Your task to perform on an android device: open app "Adobe Express: Graphic Design" (install if not already installed), go to login, and select forgot password Image 0: 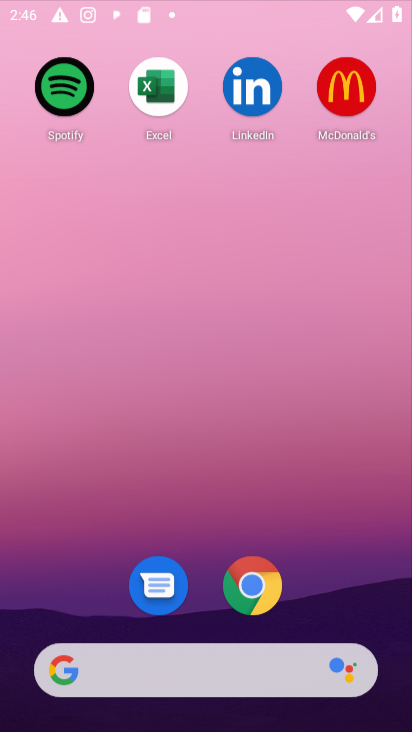
Step 0: press home button
Your task to perform on an android device: open app "Adobe Express: Graphic Design" (install if not already installed), go to login, and select forgot password Image 1: 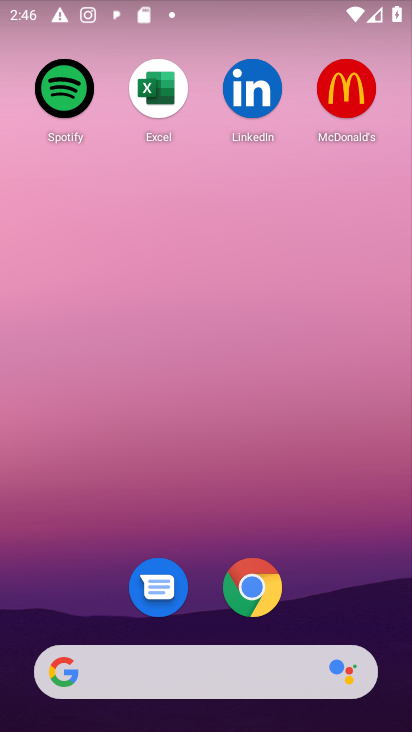
Step 1: press home button
Your task to perform on an android device: open app "Adobe Express: Graphic Design" (install if not already installed), go to login, and select forgot password Image 2: 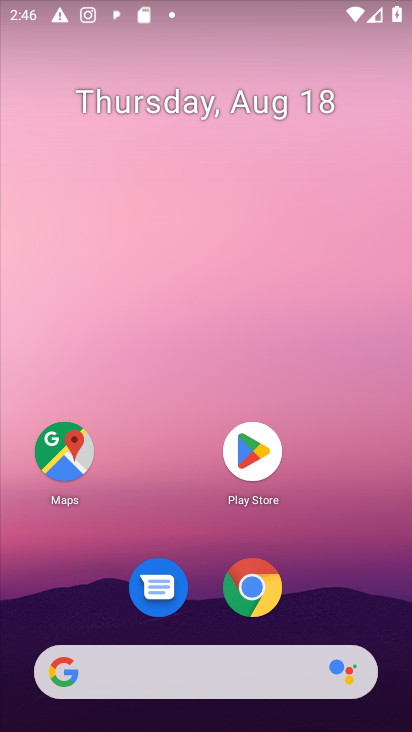
Step 2: type "Adobe Express: Graphic Design"
Your task to perform on an android device: open app "Adobe Express: Graphic Design" (install if not already installed), go to login, and select forgot password Image 3: 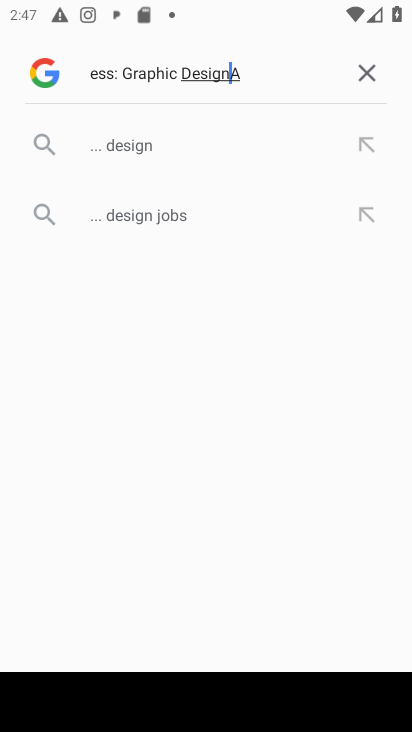
Step 3: click (257, 444)
Your task to perform on an android device: open app "Adobe Express: Graphic Design" (install if not already installed), go to login, and select forgot password Image 4: 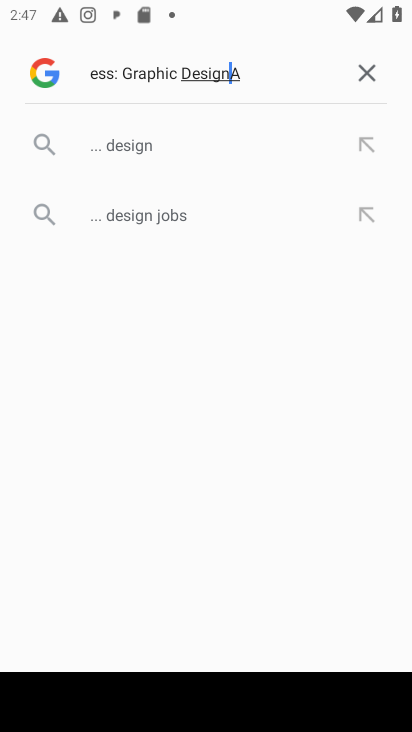
Step 4: press home button
Your task to perform on an android device: open app "Adobe Express: Graphic Design" (install if not already installed), go to login, and select forgot password Image 5: 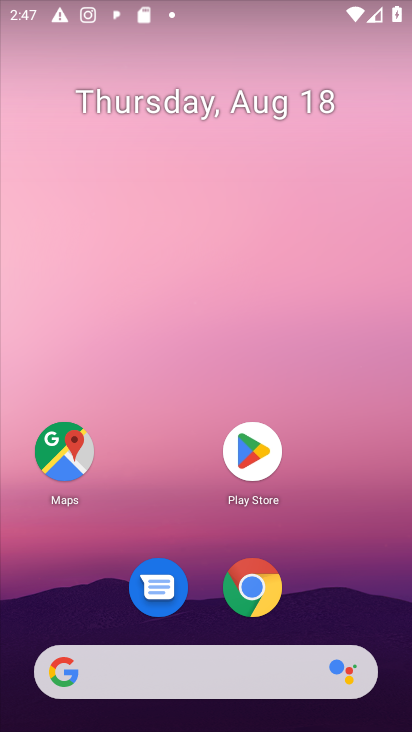
Step 5: click (240, 443)
Your task to perform on an android device: open app "Adobe Express: Graphic Design" (install if not already installed), go to login, and select forgot password Image 6: 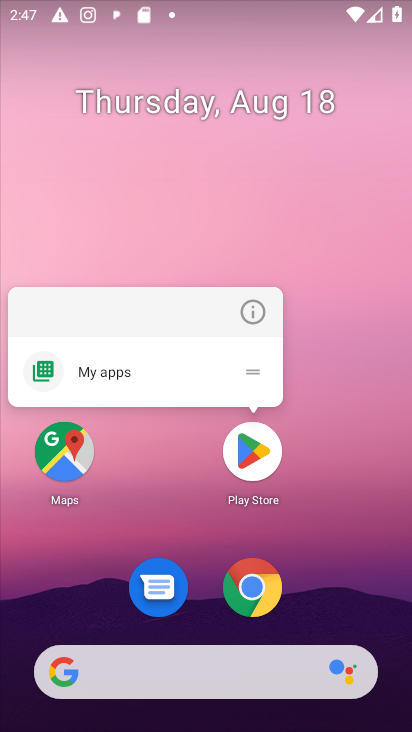
Step 6: click (236, 452)
Your task to perform on an android device: open app "Adobe Express: Graphic Design" (install if not already installed), go to login, and select forgot password Image 7: 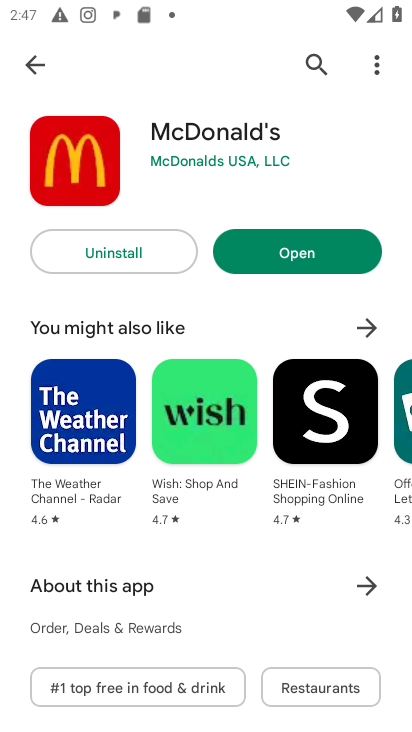
Step 7: click (313, 62)
Your task to perform on an android device: open app "Adobe Express: Graphic Design" (install if not already installed), go to login, and select forgot password Image 8: 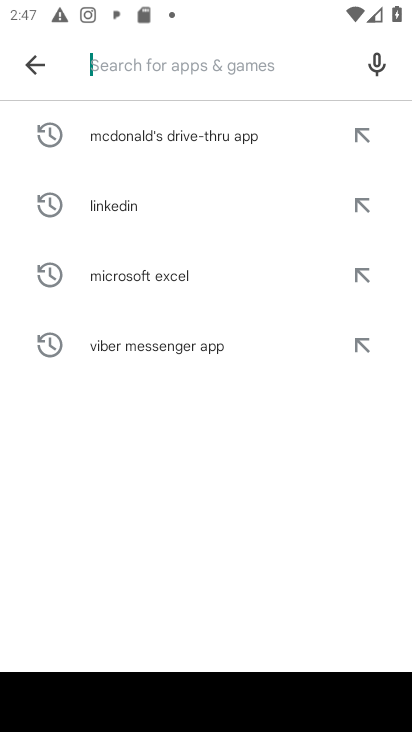
Step 8: type "Adobe Express: Graphic Design"
Your task to perform on an android device: open app "Adobe Express: Graphic Design" (install if not already installed), go to login, and select forgot password Image 9: 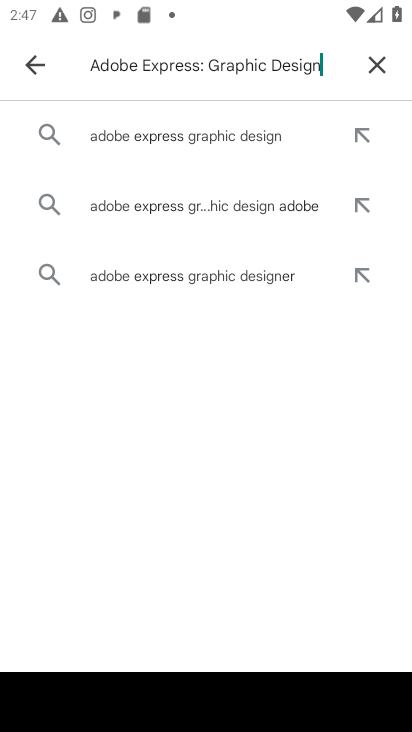
Step 9: click (235, 131)
Your task to perform on an android device: open app "Adobe Express: Graphic Design" (install if not already installed), go to login, and select forgot password Image 10: 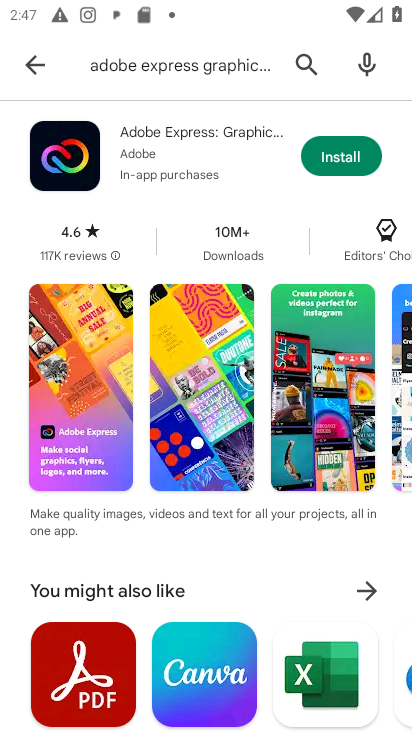
Step 10: click (330, 161)
Your task to perform on an android device: open app "Adobe Express: Graphic Design" (install if not already installed), go to login, and select forgot password Image 11: 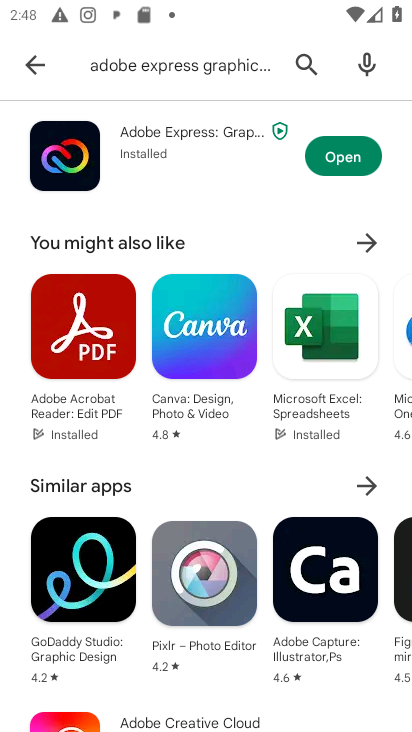
Step 11: click (353, 158)
Your task to perform on an android device: open app "Adobe Express: Graphic Design" (install if not already installed), go to login, and select forgot password Image 12: 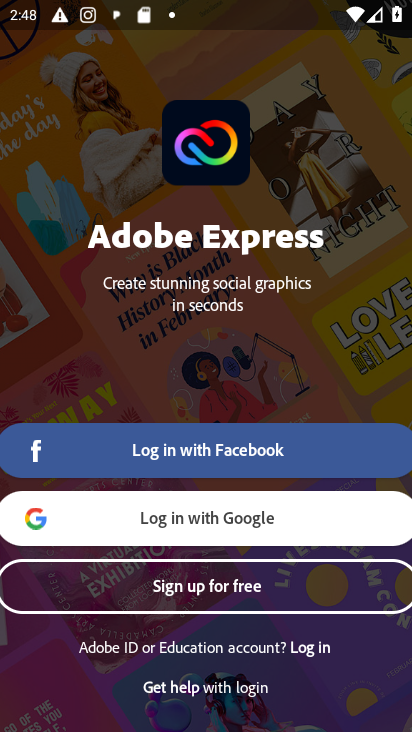
Step 12: click (326, 657)
Your task to perform on an android device: open app "Adobe Express: Graphic Design" (install if not already installed), go to login, and select forgot password Image 13: 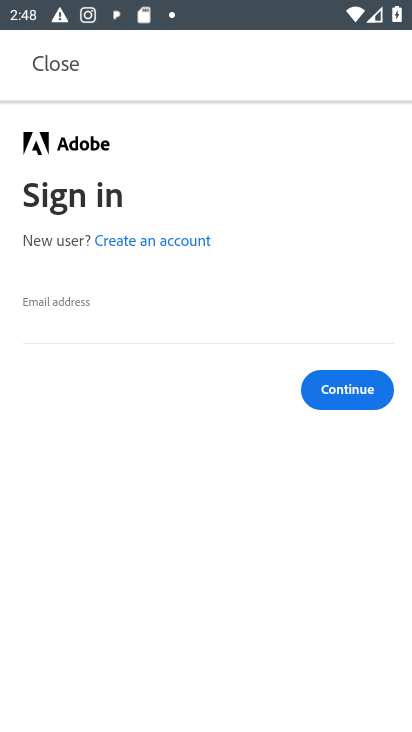
Step 13: task complete